Your task to perform on an android device: Go to wifi settings Image 0: 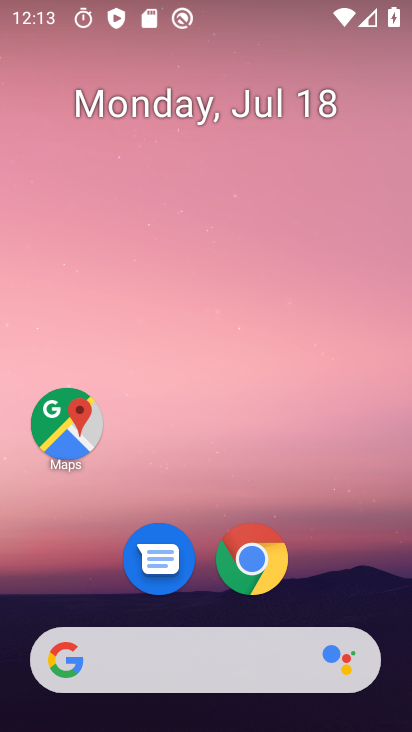
Step 0: drag from (215, 9) to (207, 523)
Your task to perform on an android device: Go to wifi settings Image 1: 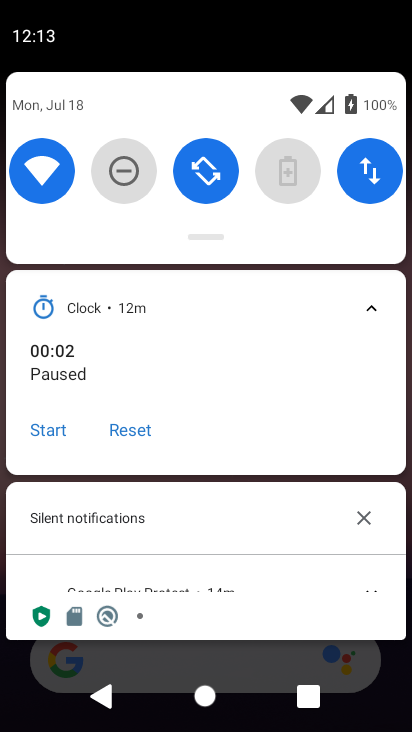
Step 1: click (50, 170)
Your task to perform on an android device: Go to wifi settings Image 2: 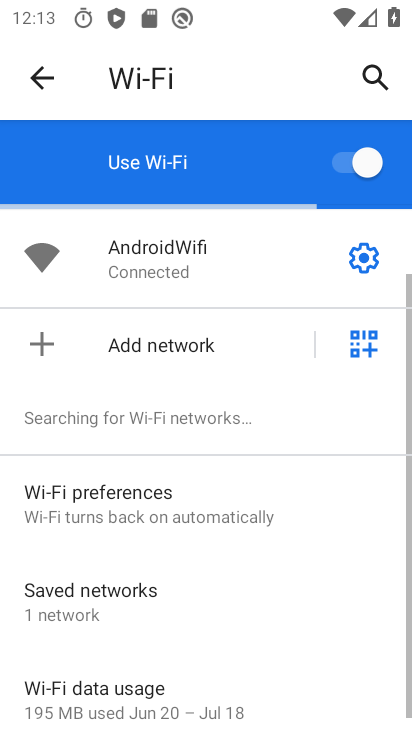
Step 2: task complete